Your task to perform on an android device: Open notification settings Image 0: 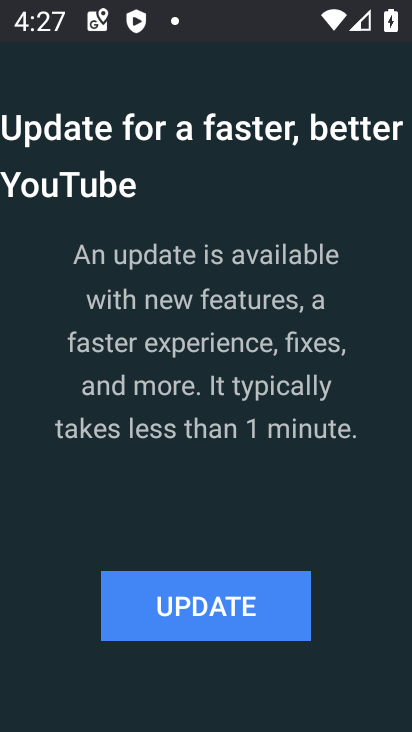
Step 0: press home button
Your task to perform on an android device: Open notification settings Image 1: 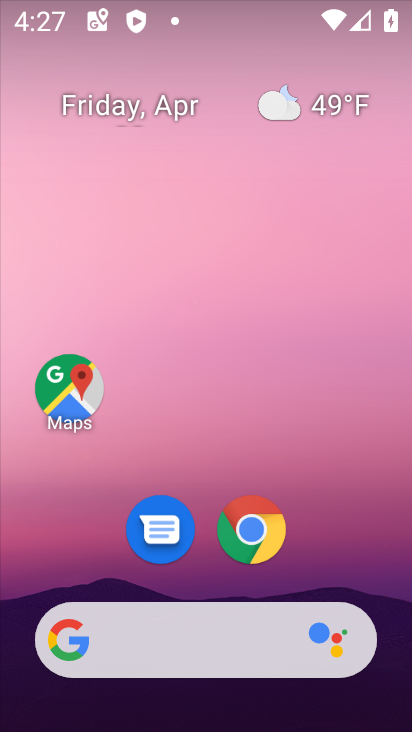
Step 1: drag from (241, 708) to (212, 175)
Your task to perform on an android device: Open notification settings Image 2: 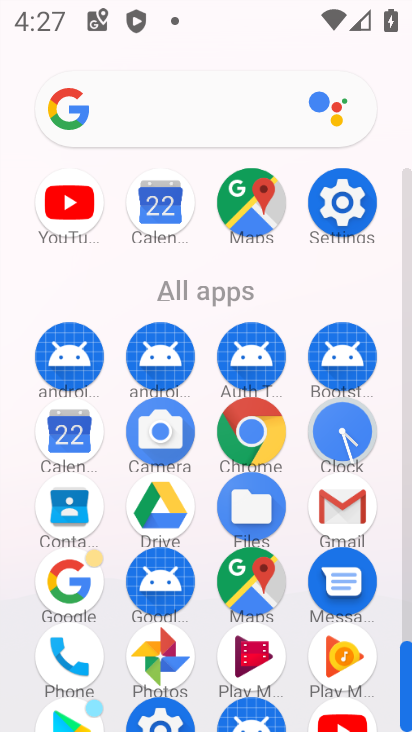
Step 2: click (342, 208)
Your task to perform on an android device: Open notification settings Image 3: 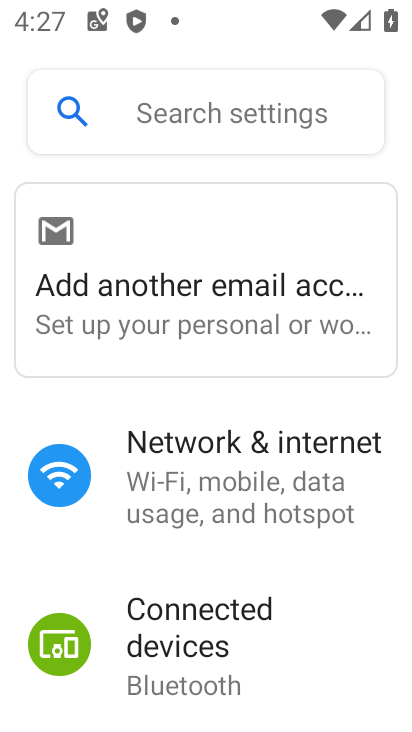
Step 3: drag from (232, 679) to (248, 289)
Your task to perform on an android device: Open notification settings Image 4: 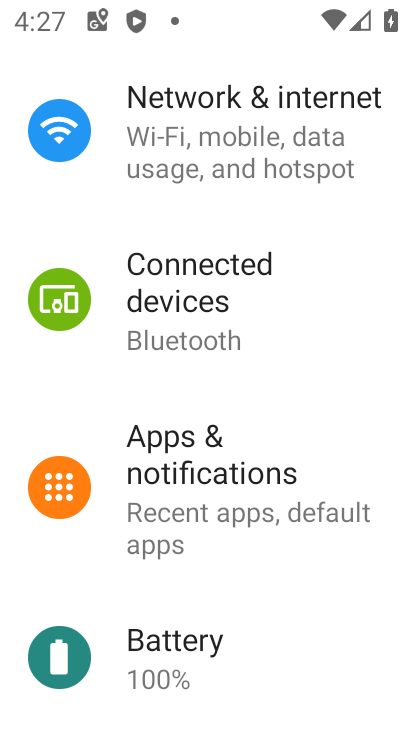
Step 4: click (193, 480)
Your task to perform on an android device: Open notification settings Image 5: 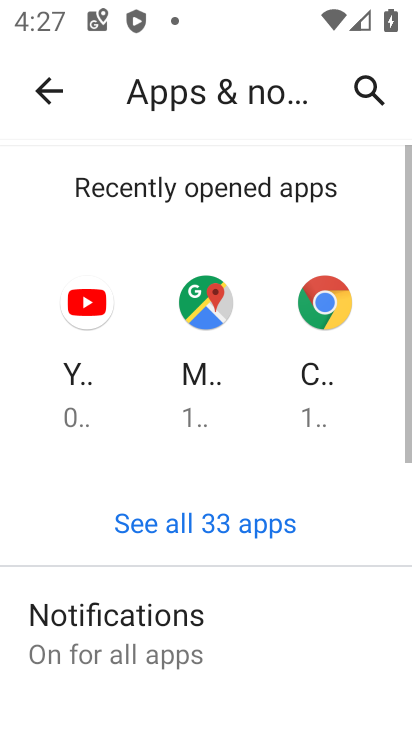
Step 5: click (137, 639)
Your task to perform on an android device: Open notification settings Image 6: 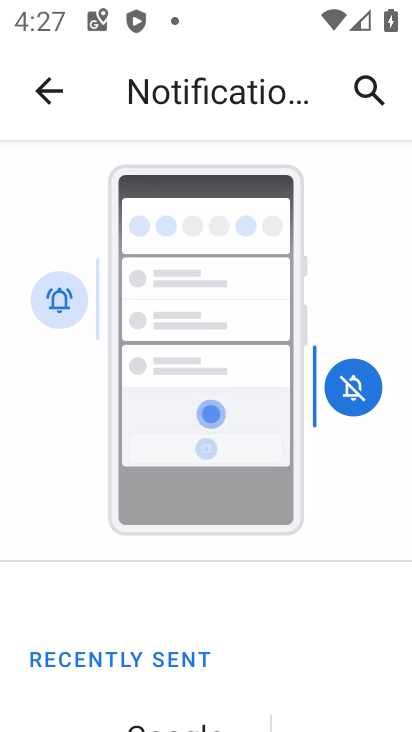
Step 6: task complete